Your task to perform on an android device: Go to settings Image 0: 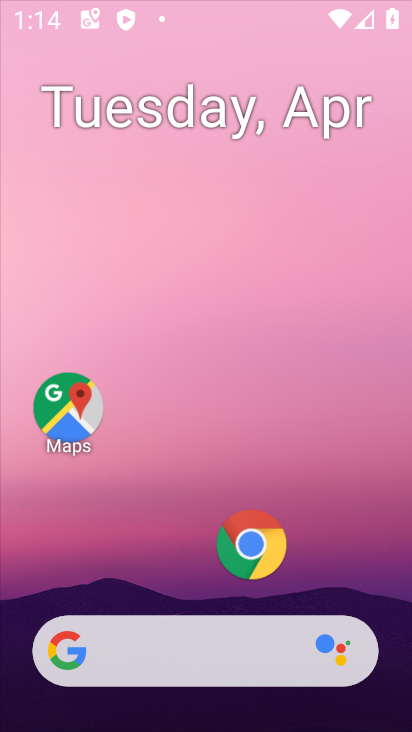
Step 0: drag from (174, 560) to (160, 243)
Your task to perform on an android device: Go to settings Image 1: 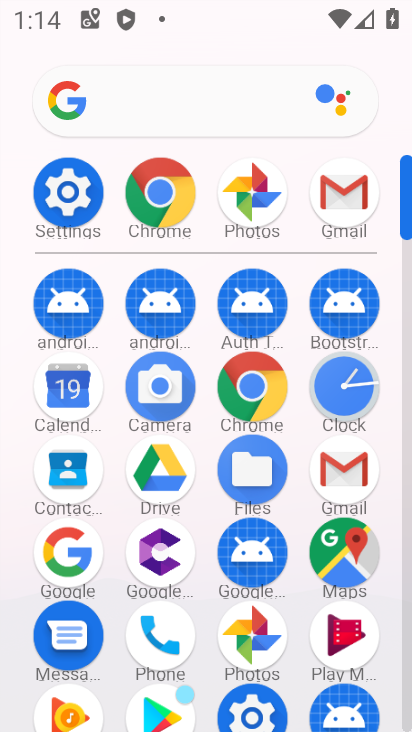
Step 1: click (60, 189)
Your task to perform on an android device: Go to settings Image 2: 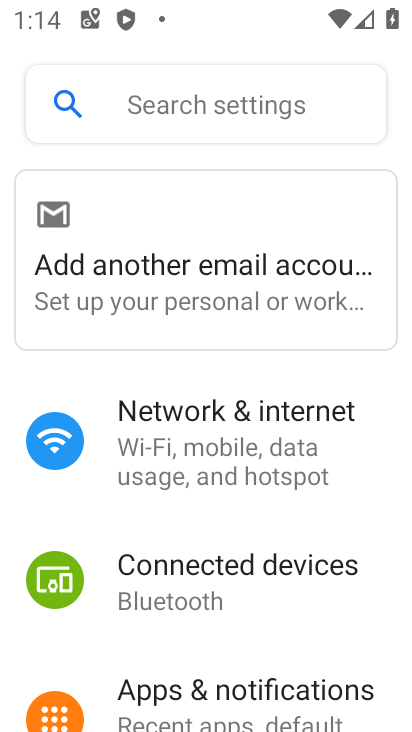
Step 2: task complete